Your task to perform on an android device: Play the last video I watched on Youtube Image 0: 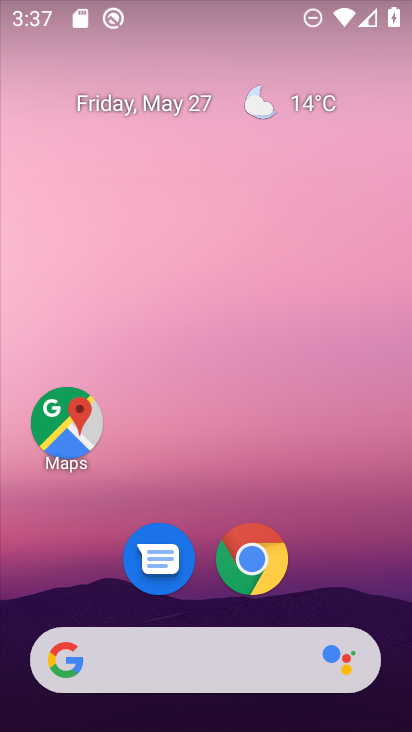
Step 0: press home button
Your task to perform on an android device: Play the last video I watched on Youtube Image 1: 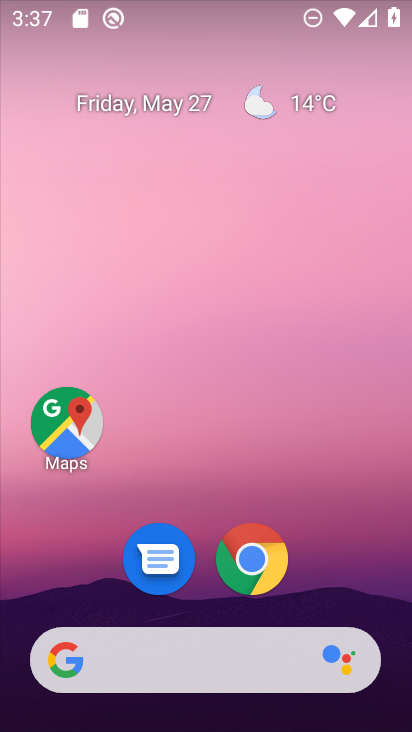
Step 1: task complete